Your task to perform on an android device: Open Google Image 0: 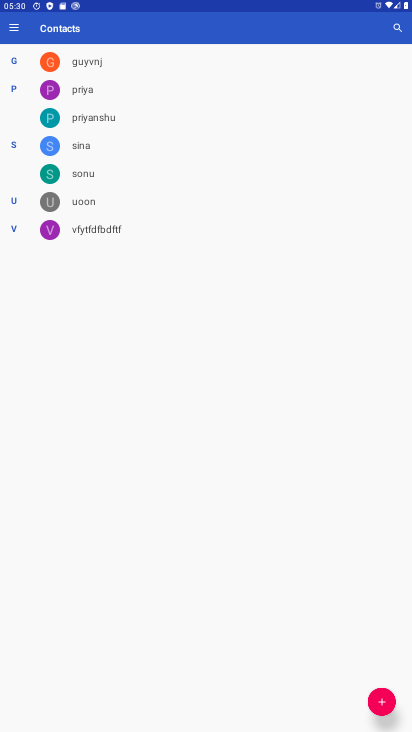
Step 0: press home button
Your task to perform on an android device: Open Google Image 1: 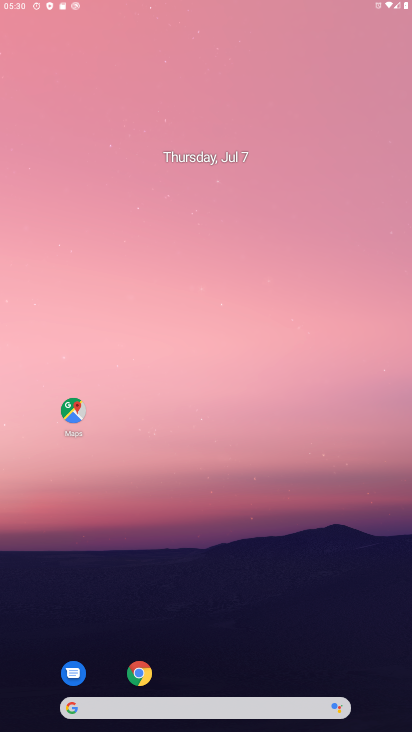
Step 1: drag from (259, 674) to (379, 26)
Your task to perform on an android device: Open Google Image 2: 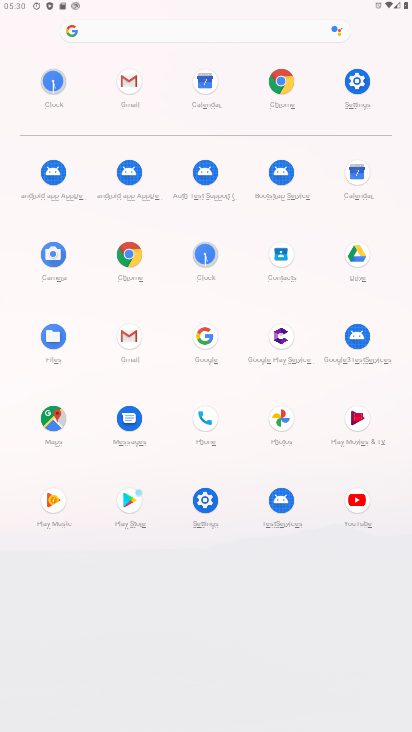
Step 2: click (132, 263)
Your task to perform on an android device: Open Google Image 3: 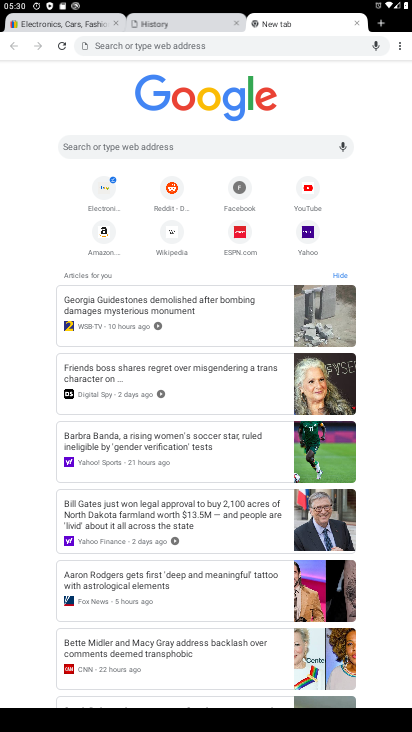
Step 3: task complete